Your task to perform on an android device: show emergency info Image 0: 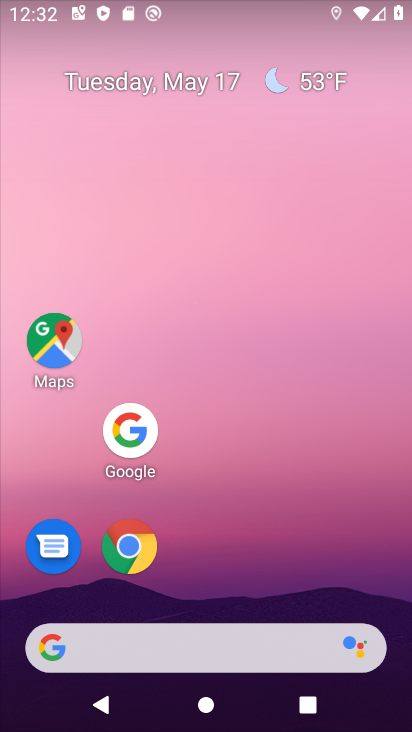
Step 0: drag from (226, 553) to (185, 0)
Your task to perform on an android device: show emergency info Image 1: 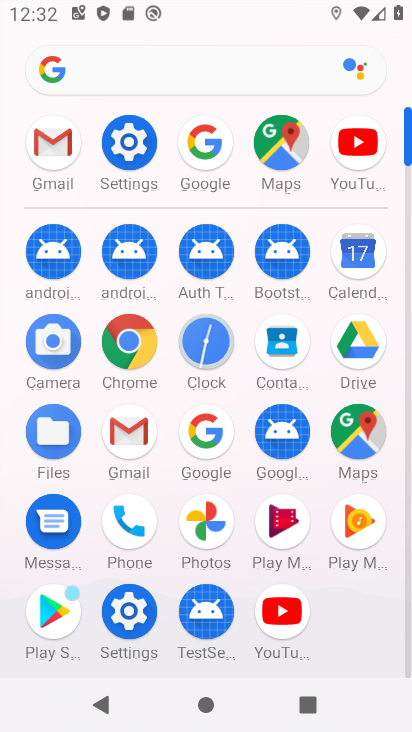
Step 1: click (135, 166)
Your task to perform on an android device: show emergency info Image 2: 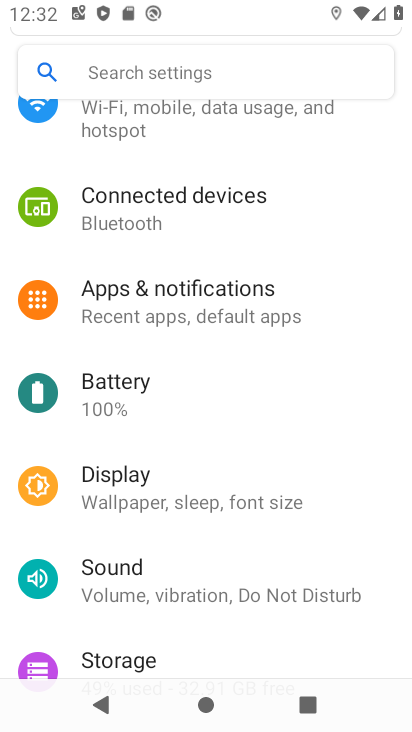
Step 2: drag from (278, 597) to (302, 11)
Your task to perform on an android device: show emergency info Image 3: 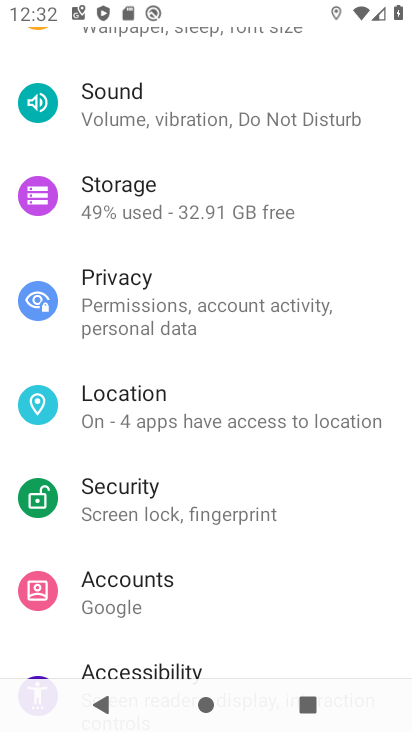
Step 3: drag from (262, 597) to (269, 101)
Your task to perform on an android device: show emergency info Image 4: 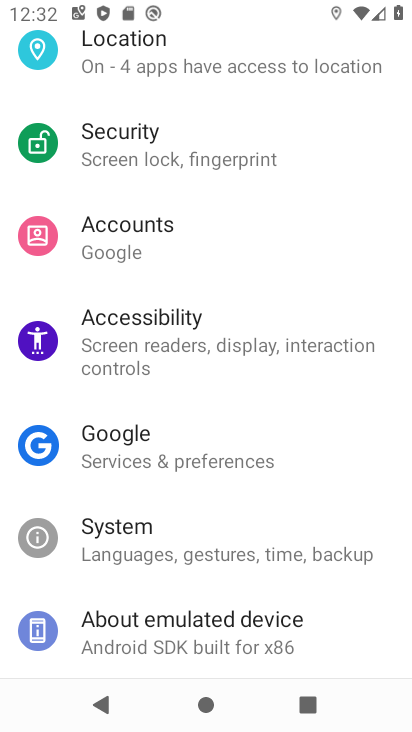
Step 4: click (181, 636)
Your task to perform on an android device: show emergency info Image 5: 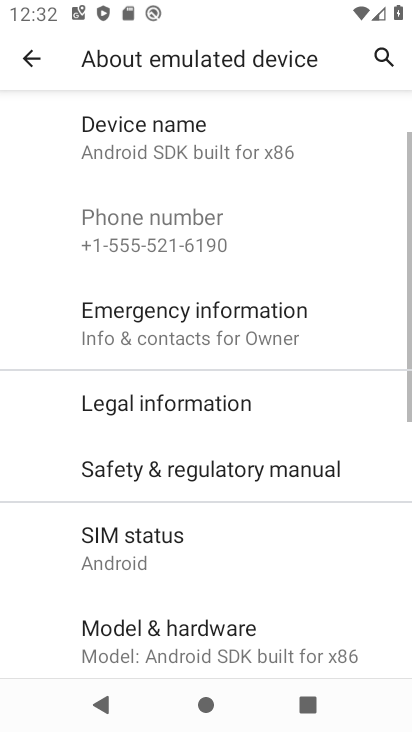
Step 5: click (214, 334)
Your task to perform on an android device: show emergency info Image 6: 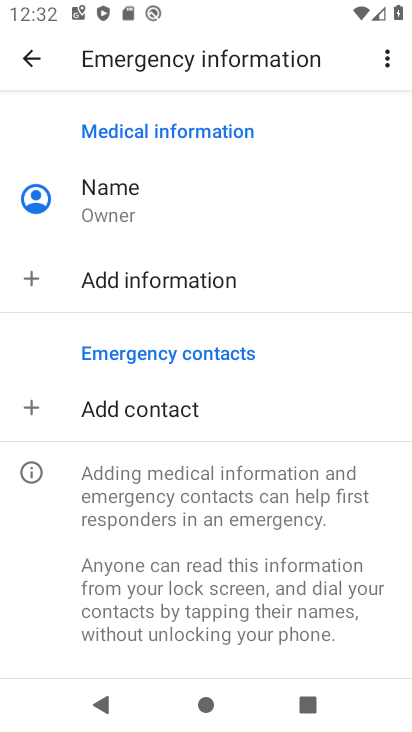
Step 6: task complete